Your task to perform on an android device: find photos in the google photos app Image 0: 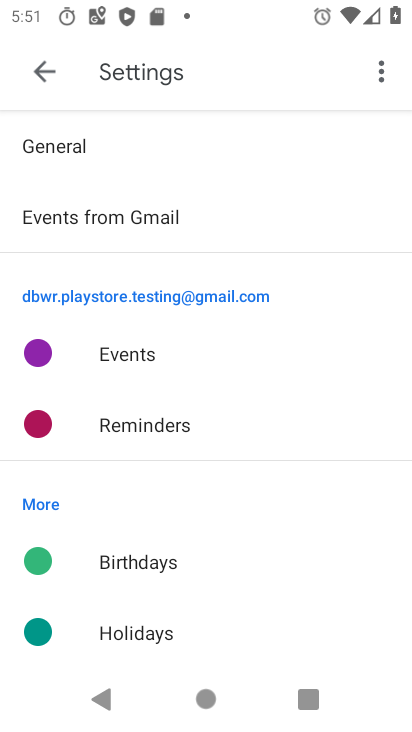
Step 0: press home button
Your task to perform on an android device: find photos in the google photos app Image 1: 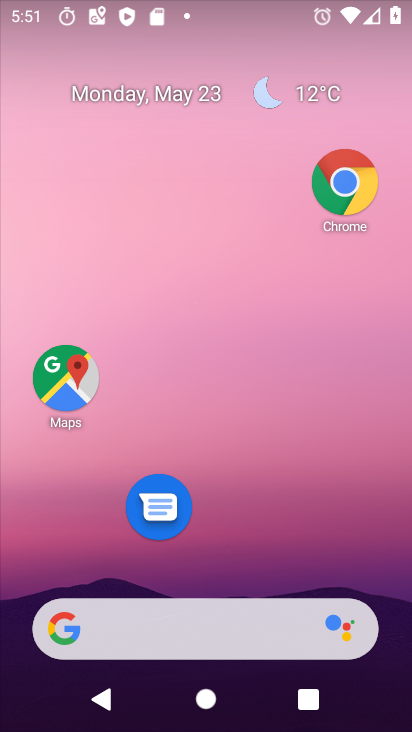
Step 1: drag from (196, 528) to (252, 11)
Your task to perform on an android device: find photos in the google photos app Image 2: 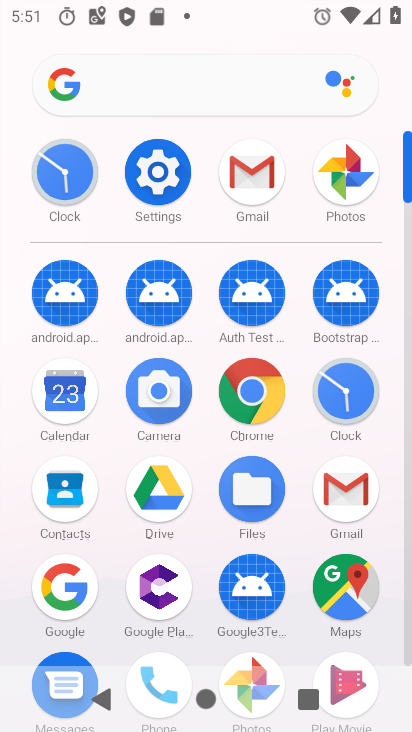
Step 2: click (335, 193)
Your task to perform on an android device: find photos in the google photos app Image 3: 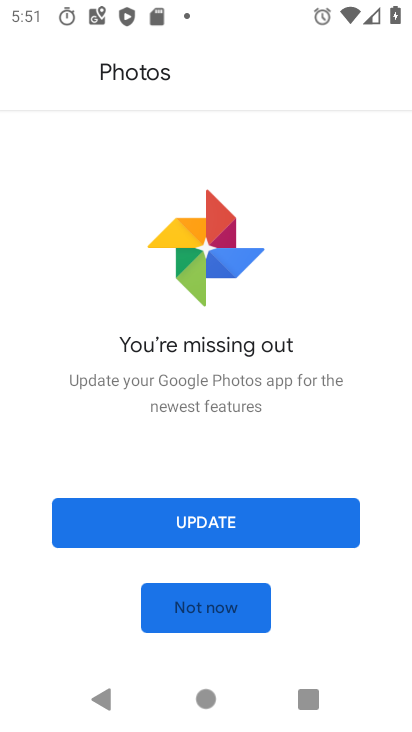
Step 3: click (201, 601)
Your task to perform on an android device: find photos in the google photos app Image 4: 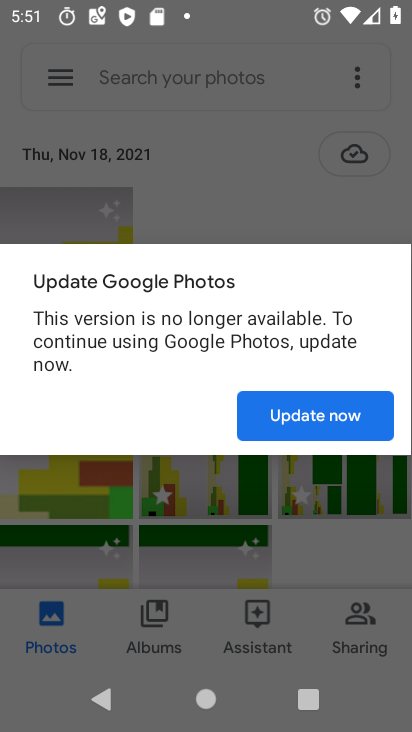
Step 4: click (312, 429)
Your task to perform on an android device: find photos in the google photos app Image 5: 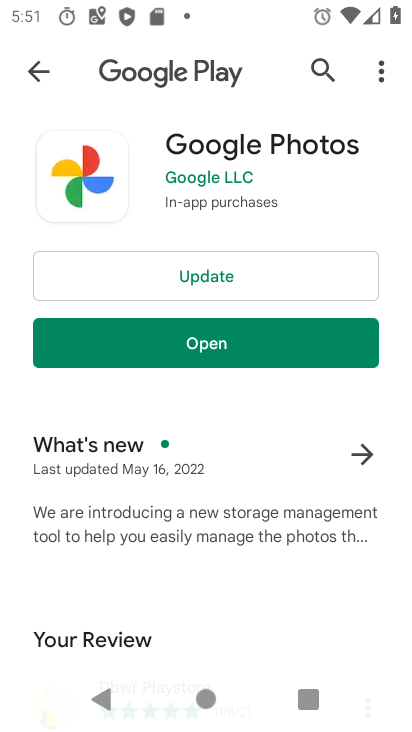
Step 5: click (246, 363)
Your task to perform on an android device: find photos in the google photos app Image 6: 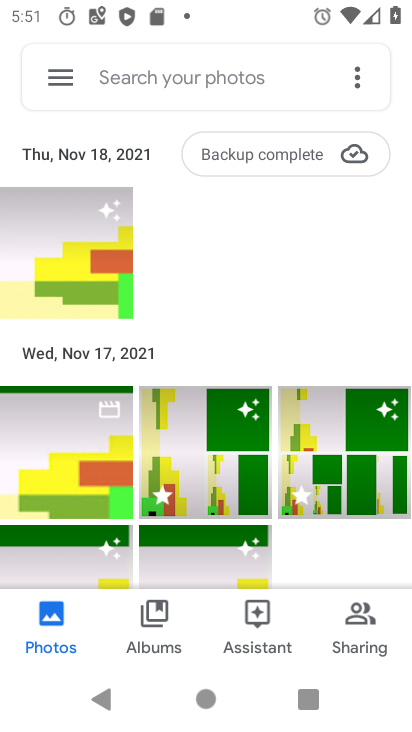
Step 6: task complete